Your task to perform on an android device: turn off translation in the chrome app Image 0: 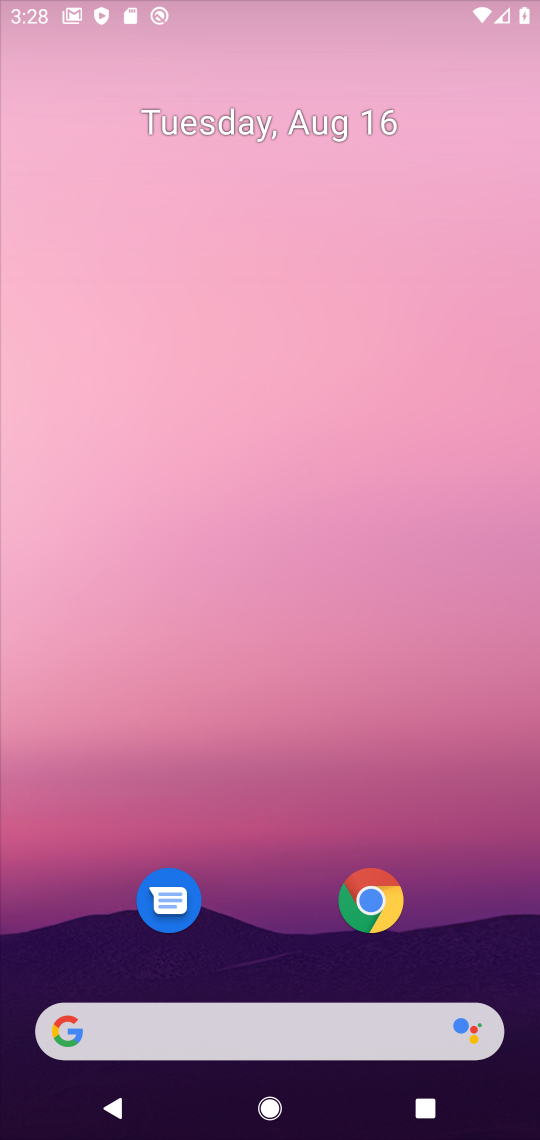
Step 0: press home button
Your task to perform on an android device: turn off translation in the chrome app Image 1: 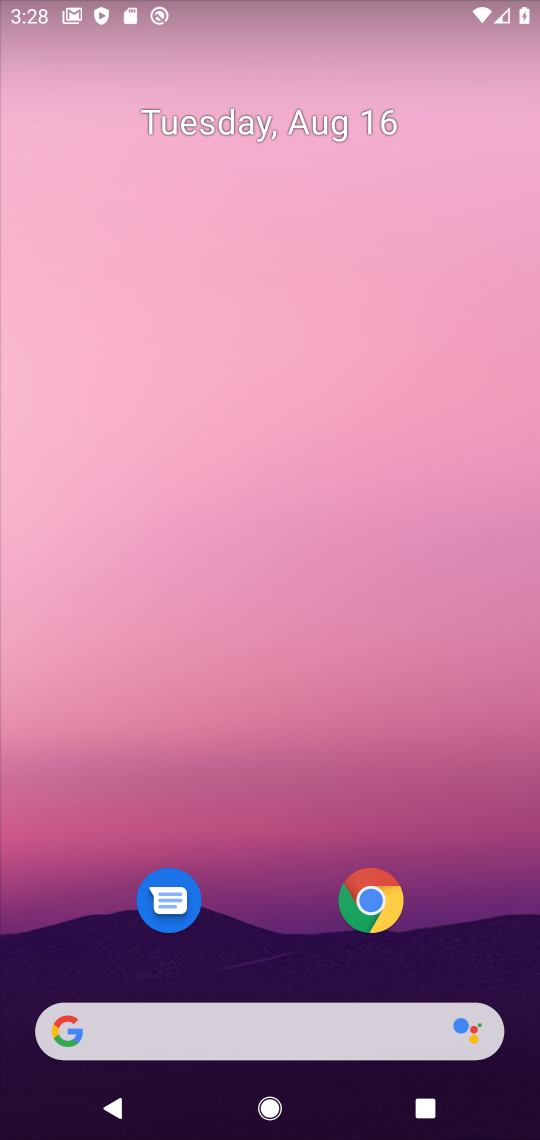
Step 1: drag from (287, 984) to (5, 12)
Your task to perform on an android device: turn off translation in the chrome app Image 2: 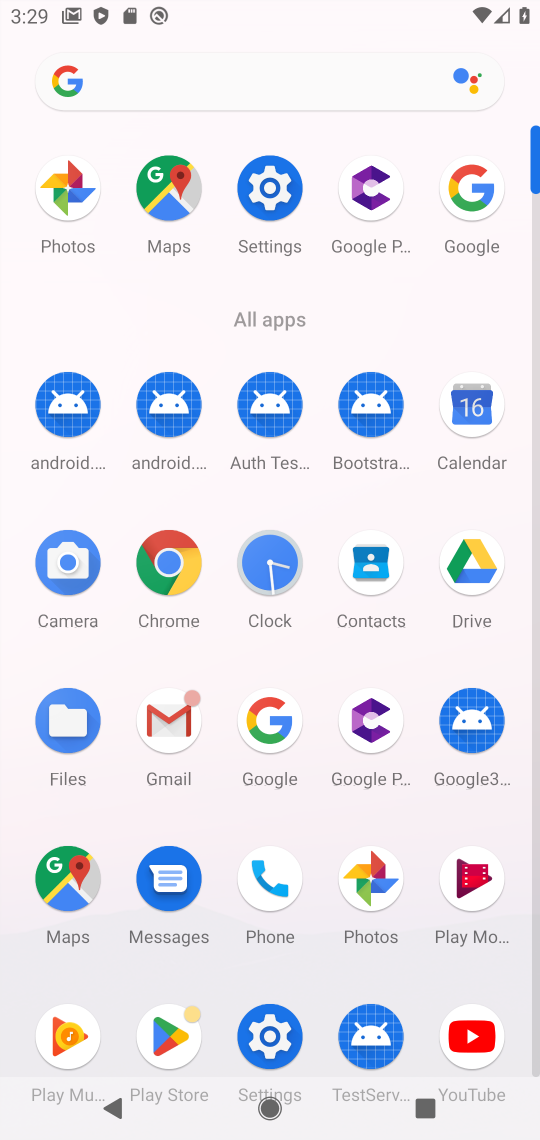
Step 2: click (185, 567)
Your task to perform on an android device: turn off translation in the chrome app Image 3: 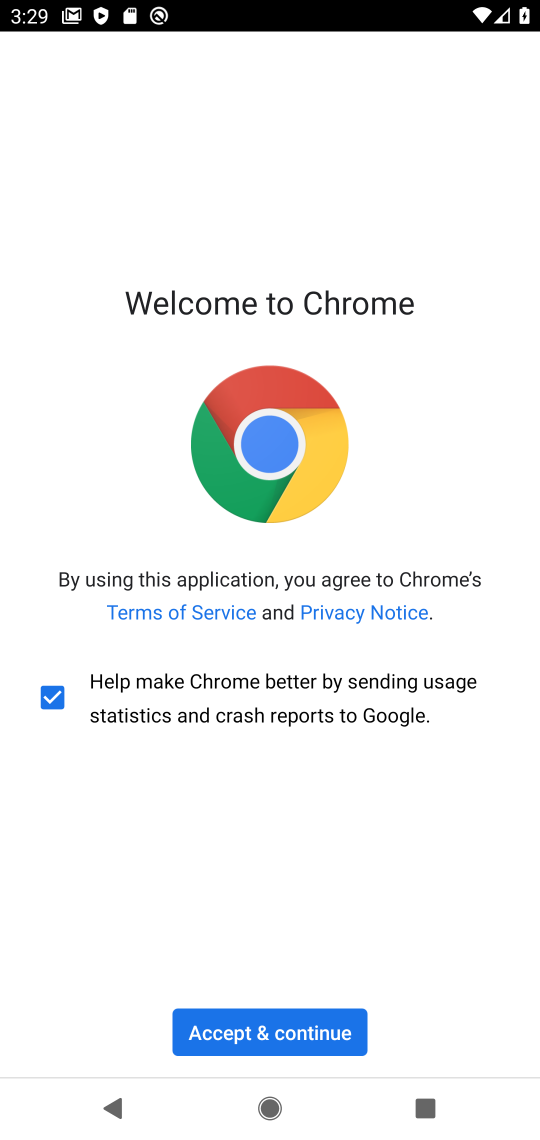
Step 3: click (212, 1034)
Your task to perform on an android device: turn off translation in the chrome app Image 4: 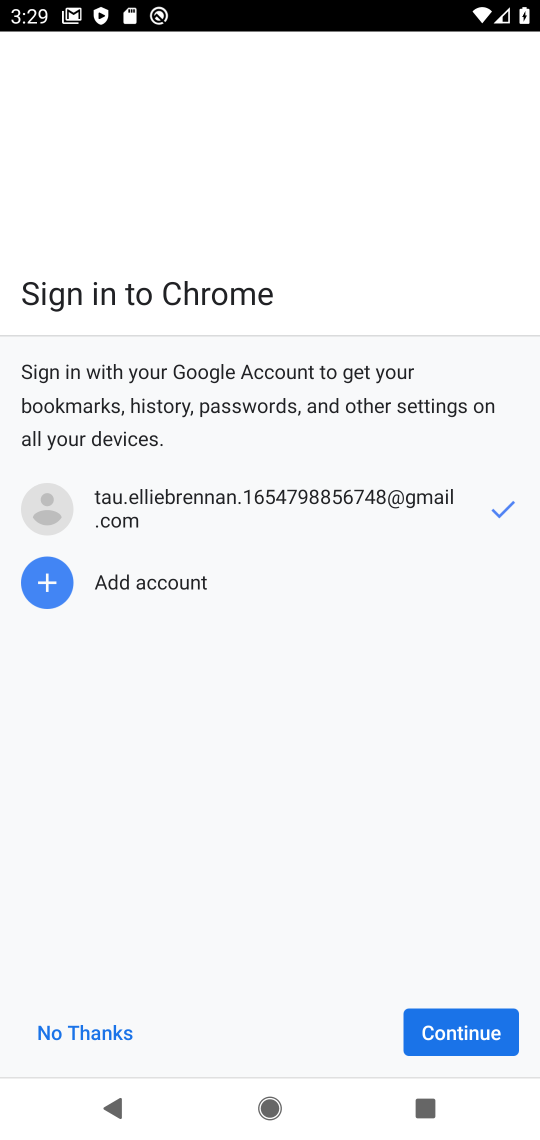
Step 4: click (442, 1025)
Your task to perform on an android device: turn off translation in the chrome app Image 5: 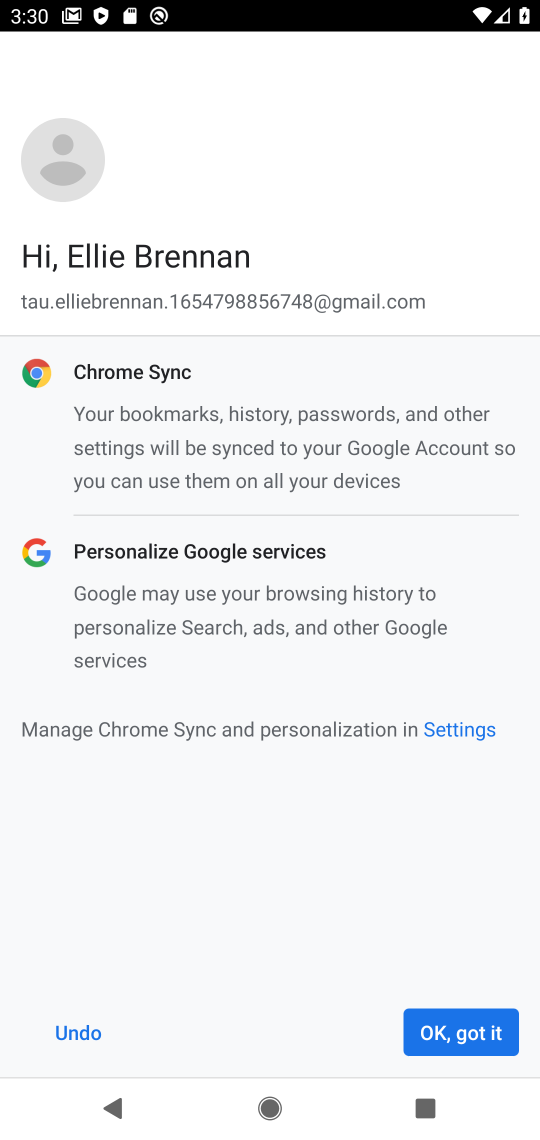
Step 5: click (462, 1025)
Your task to perform on an android device: turn off translation in the chrome app Image 6: 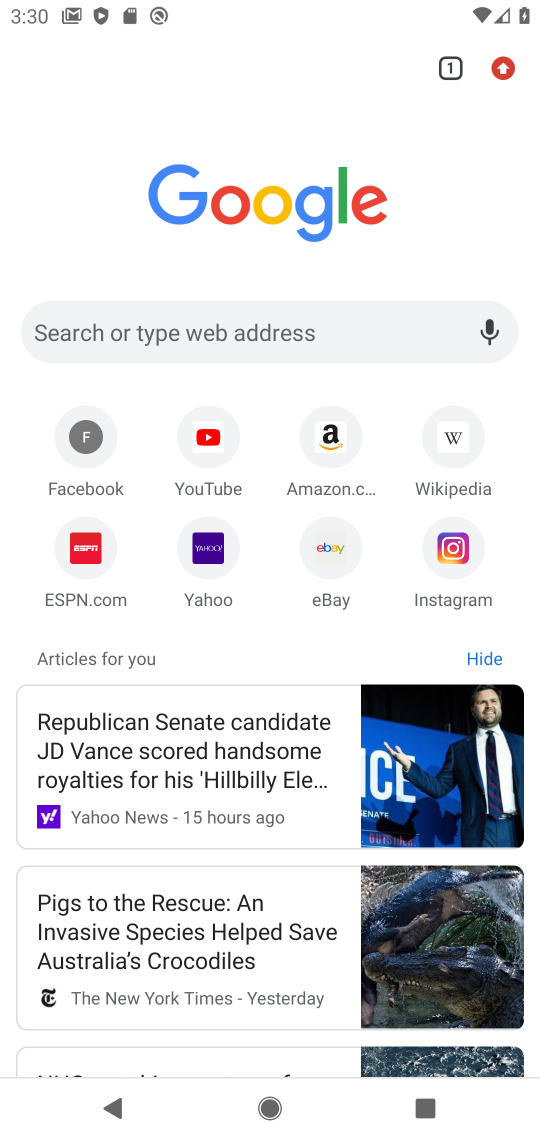
Step 6: click (501, 70)
Your task to perform on an android device: turn off translation in the chrome app Image 7: 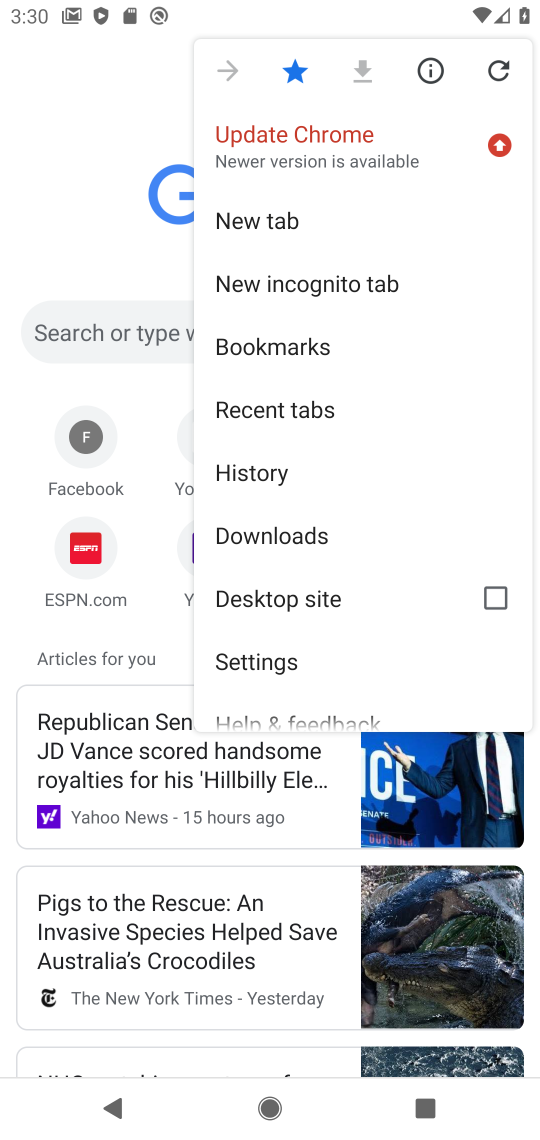
Step 7: click (259, 660)
Your task to perform on an android device: turn off translation in the chrome app Image 8: 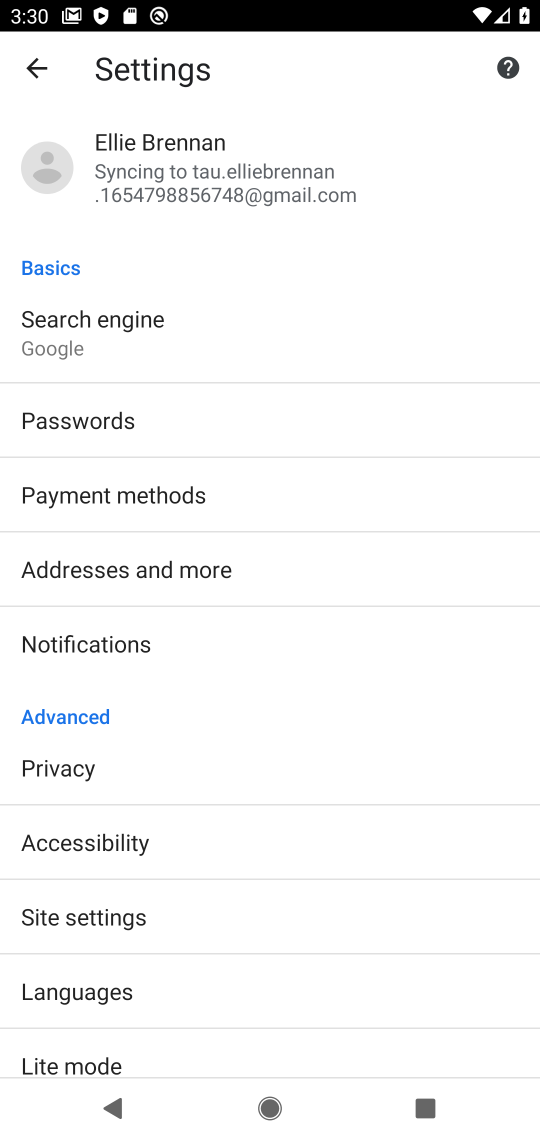
Step 8: click (102, 989)
Your task to perform on an android device: turn off translation in the chrome app Image 9: 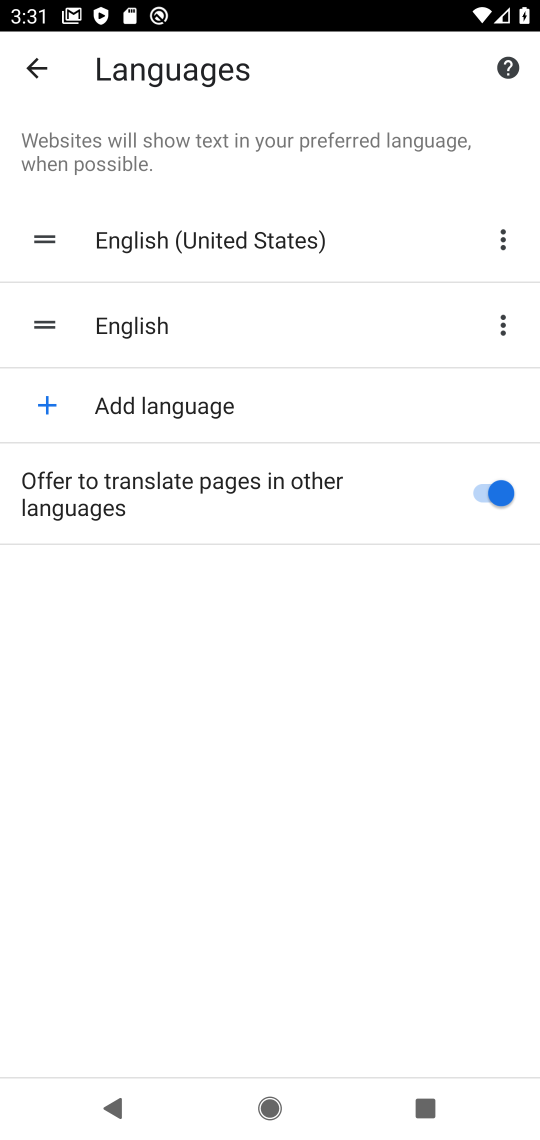
Step 9: click (496, 500)
Your task to perform on an android device: turn off translation in the chrome app Image 10: 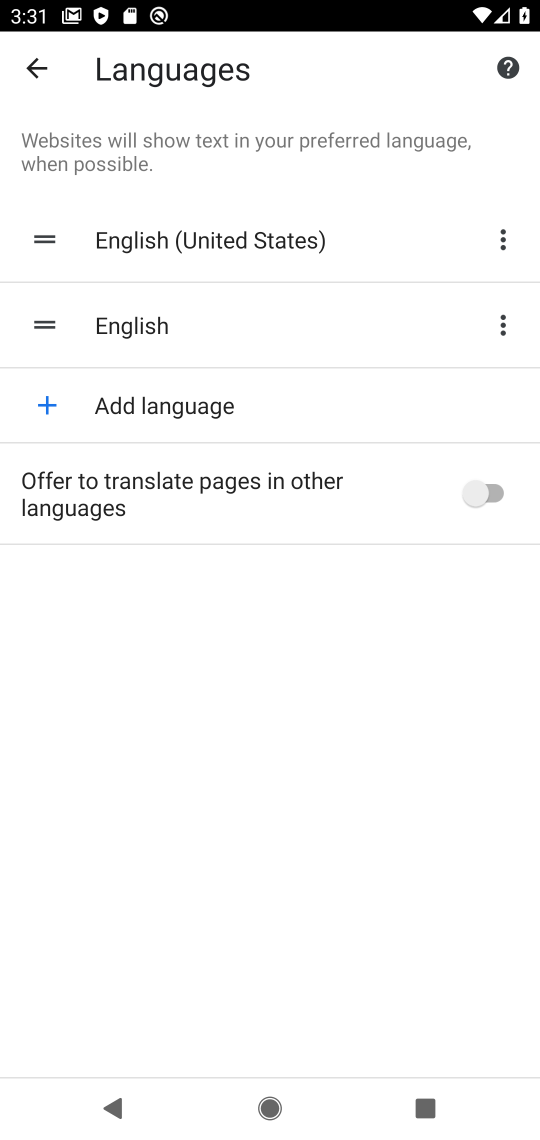
Step 10: task complete